Your task to perform on an android device: turn on airplane mode Image 0: 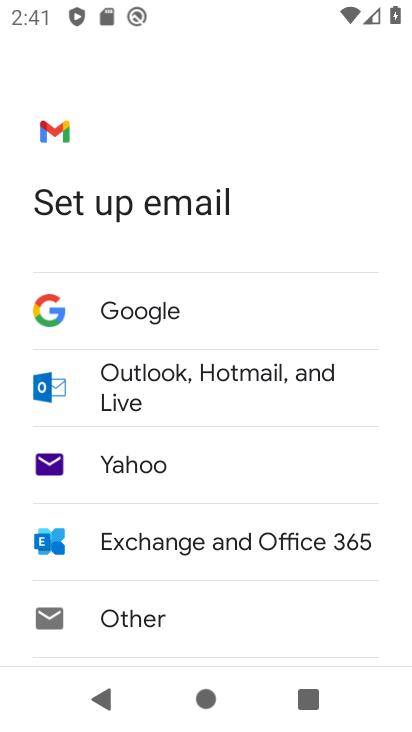
Step 0: press home button
Your task to perform on an android device: turn on airplane mode Image 1: 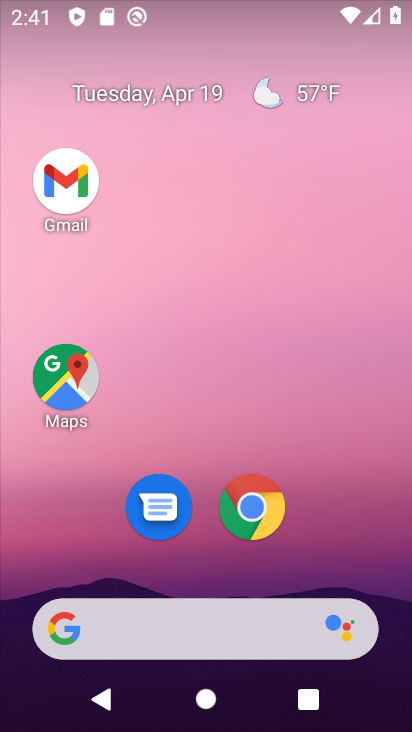
Step 1: drag from (252, 576) to (325, 247)
Your task to perform on an android device: turn on airplane mode Image 2: 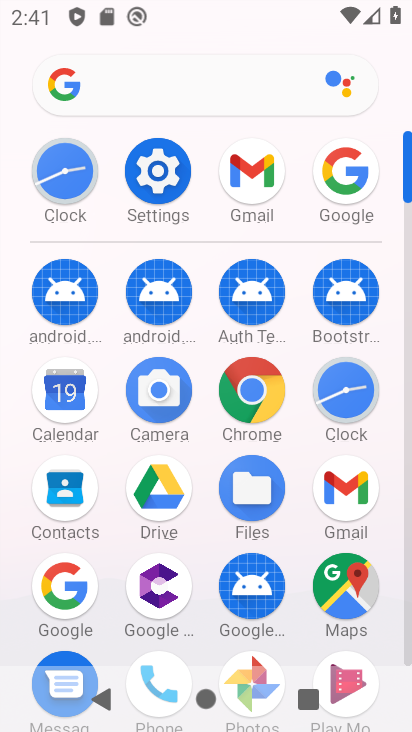
Step 2: click (159, 186)
Your task to perform on an android device: turn on airplane mode Image 3: 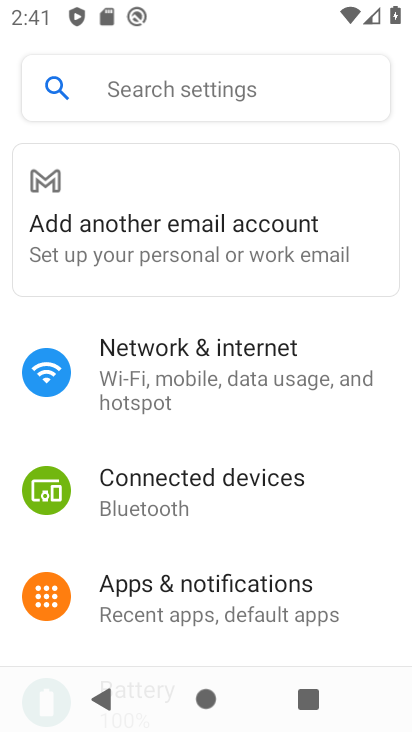
Step 3: click (139, 359)
Your task to perform on an android device: turn on airplane mode Image 4: 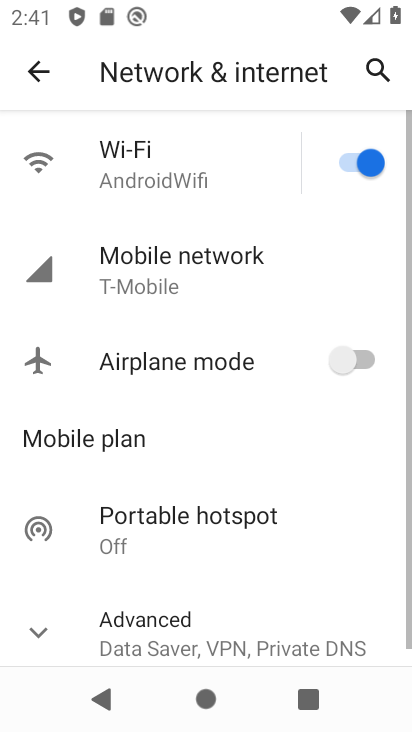
Step 4: click (354, 353)
Your task to perform on an android device: turn on airplane mode Image 5: 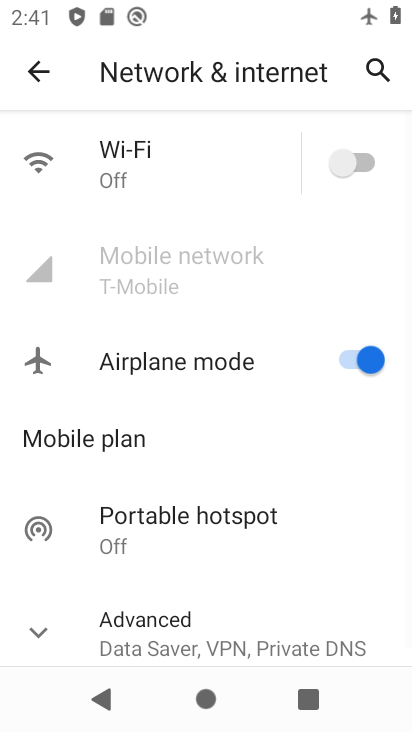
Step 5: task complete